Your task to perform on an android device: Go to eBay Image 0: 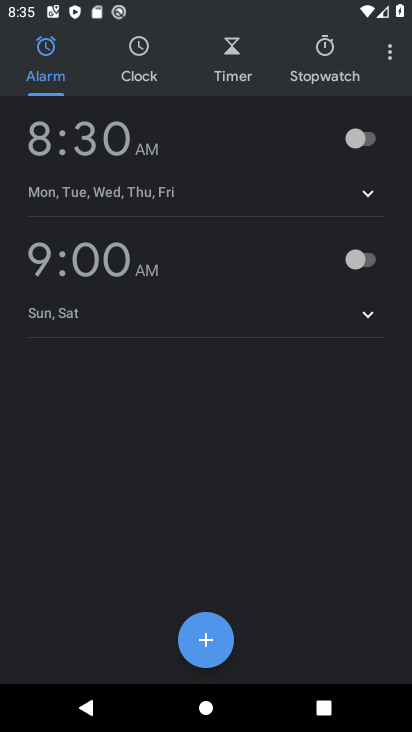
Step 0: press home button
Your task to perform on an android device: Go to eBay Image 1: 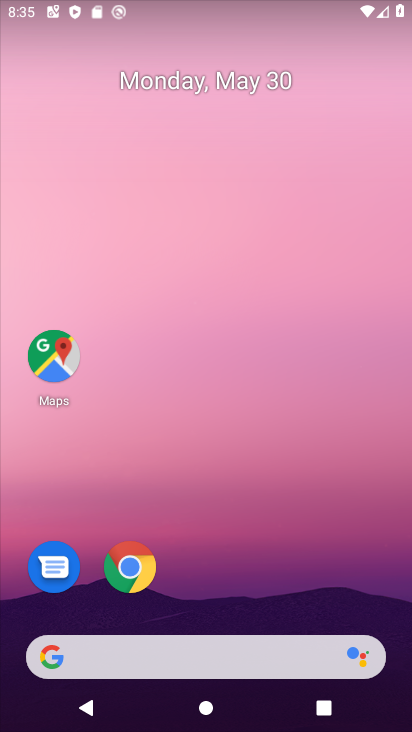
Step 1: click (147, 660)
Your task to perform on an android device: Go to eBay Image 2: 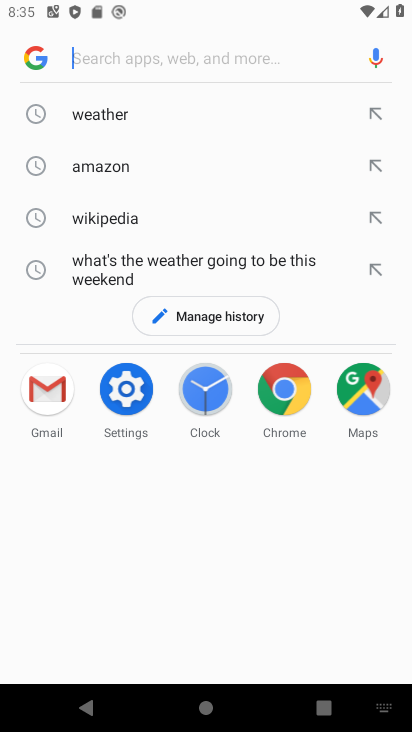
Step 2: type "ebay"
Your task to perform on an android device: Go to eBay Image 3: 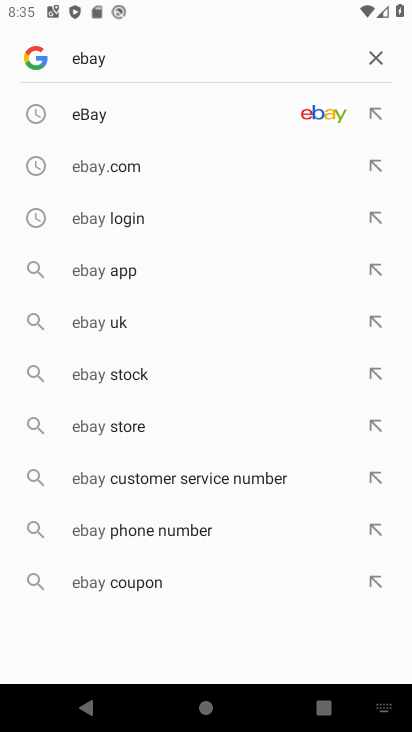
Step 3: click (315, 120)
Your task to perform on an android device: Go to eBay Image 4: 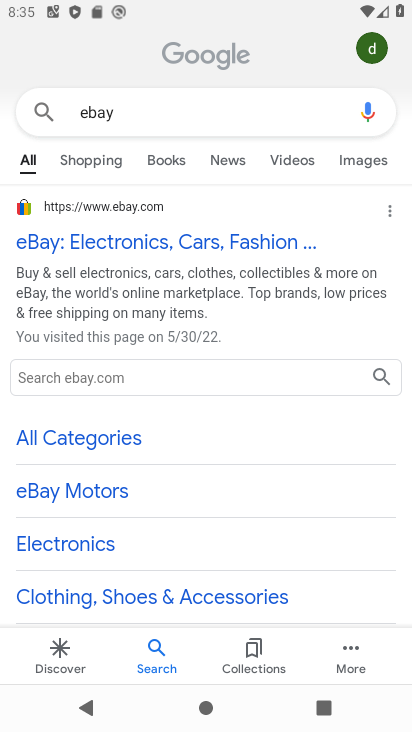
Step 4: click (155, 246)
Your task to perform on an android device: Go to eBay Image 5: 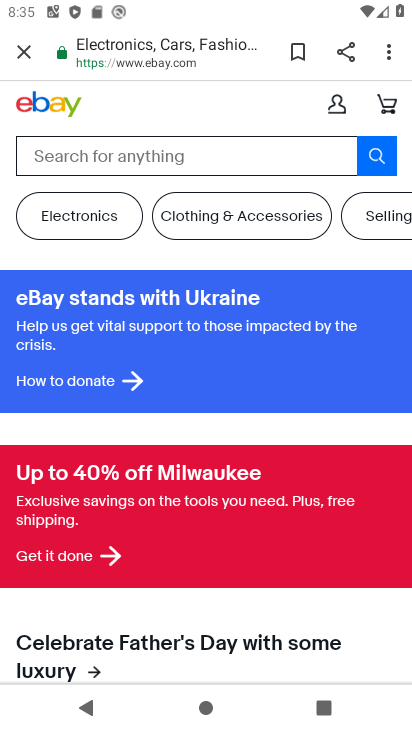
Step 5: task complete